Your task to perform on an android device: Go to eBay Image 0: 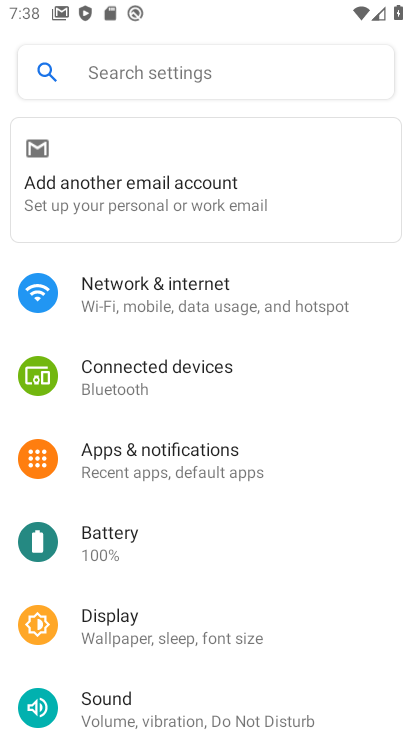
Step 0: press home button
Your task to perform on an android device: Go to eBay Image 1: 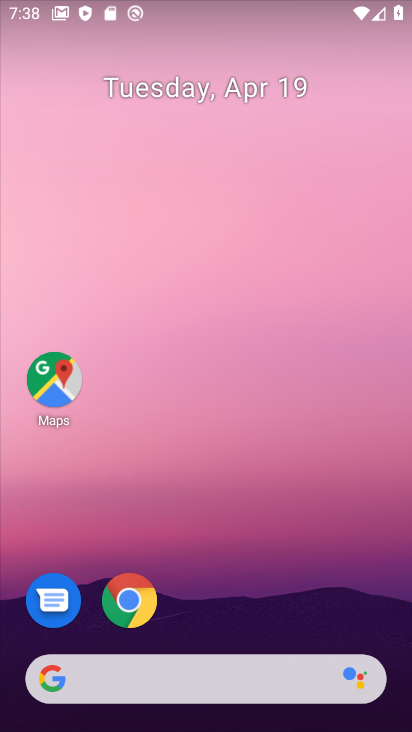
Step 1: drag from (246, 622) to (372, 55)
Your task to perform on an android device: Go to eBay Image 2: 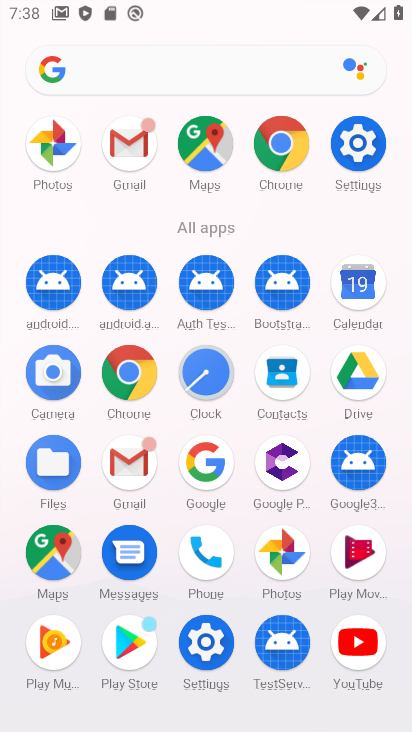
Step 2: click (271, 140)
Your task to perform on an android device: Go to eBay Image 3: 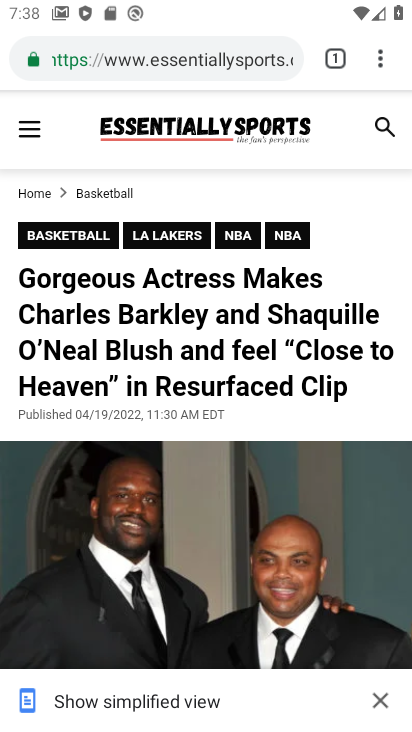
Step 3: press back button
Your task to perform on an android device: Go to eBay Image 4: 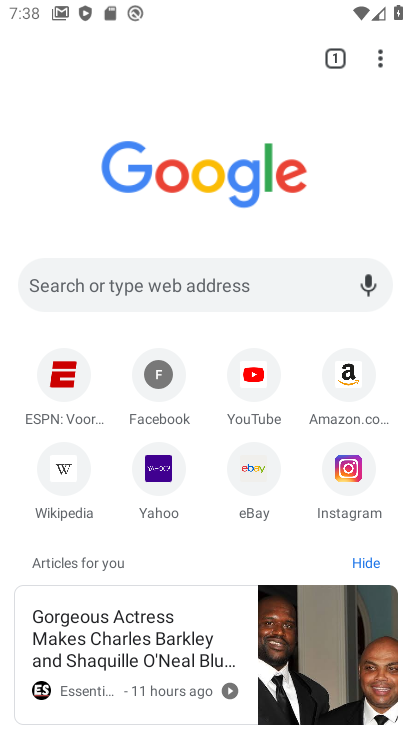
Step 4: click (266, 477)
Your task to perform on an android device: Go to eBay Image 5: 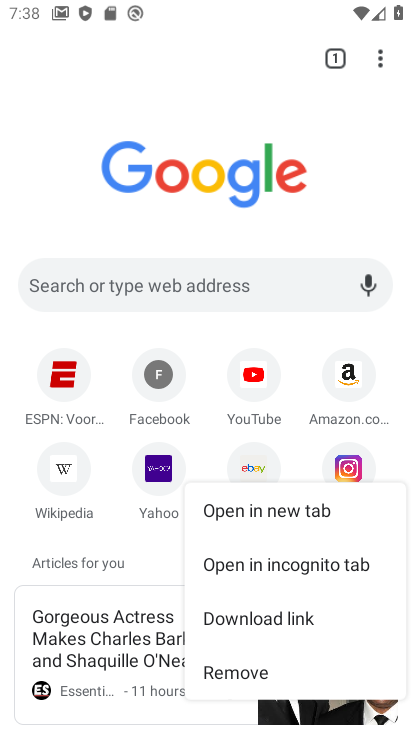
Step 5: click (252, 466)
Your task to perform on an android device: Go to eBay Image 6: 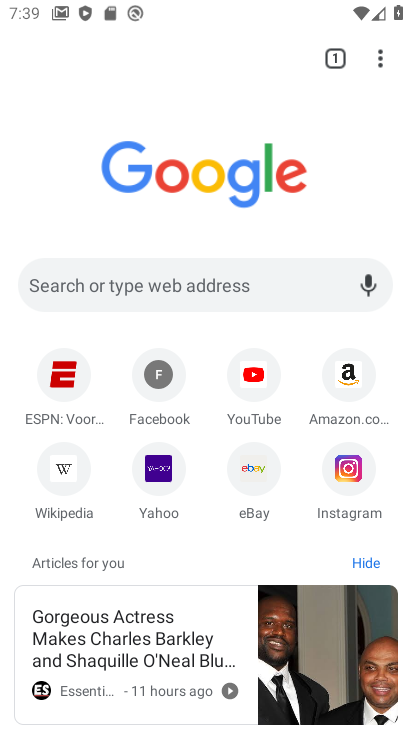
Step 6: click (258, 474)
Your task to perform on an android device: Go to eBay Image 7: 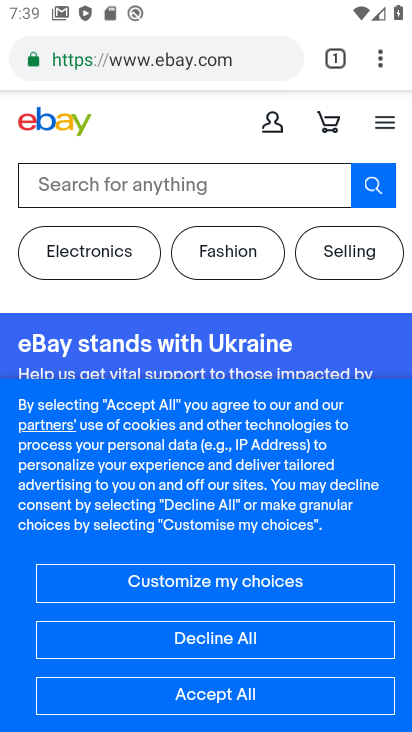
Step 7: task complete